Your task to perform on an android device: turn off data saver in the chrome app Image 0: 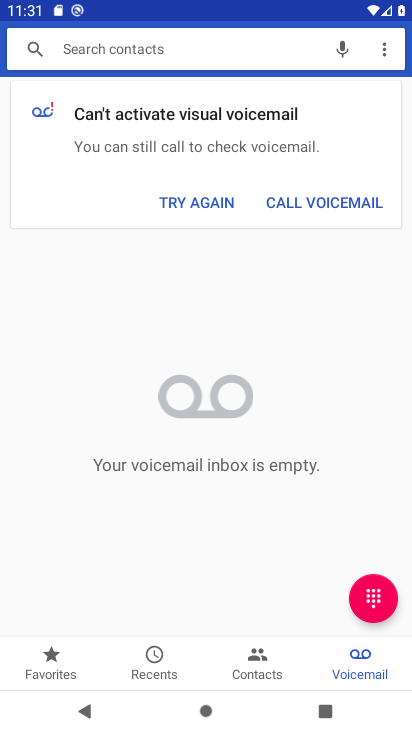
Step 0: press home button
Your task to perform on an android device: turn off data saver in the chrome app Image 1: 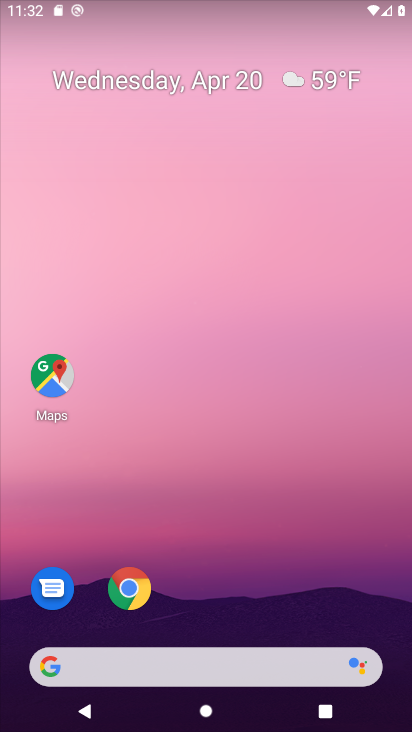
Step 1: click (124, 588)
Your task to perform on an android device: turn off data saver in the chrome app Image 2: 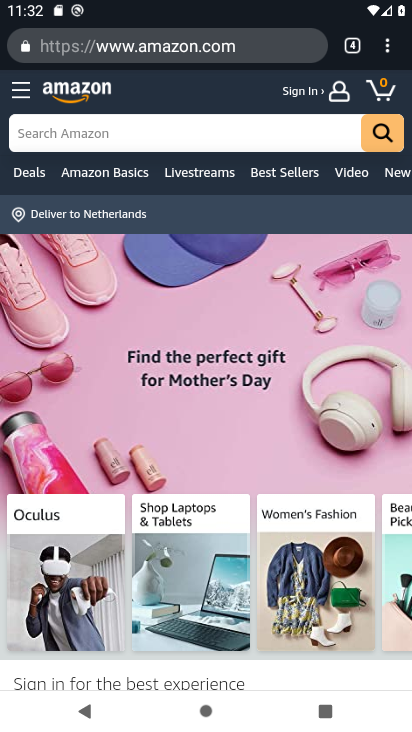
Step 2: click (386, 51)
Your task to perform on an android device: turn off data saver in the chrome app Image 3: 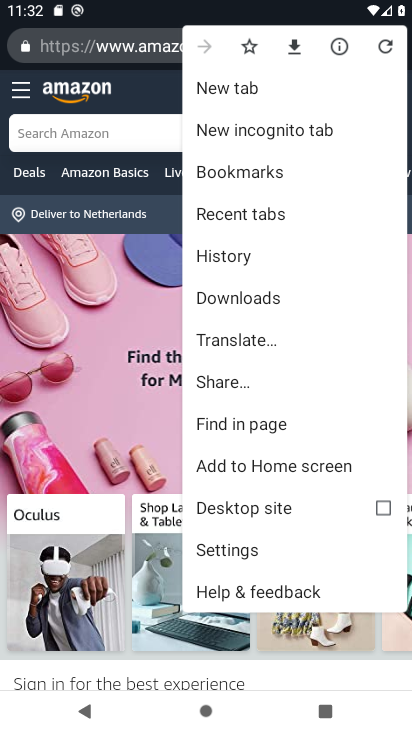
Step 3: click (220, 548)
Your task to perform on an android device: turn off data saver in the chrome app Image 4: 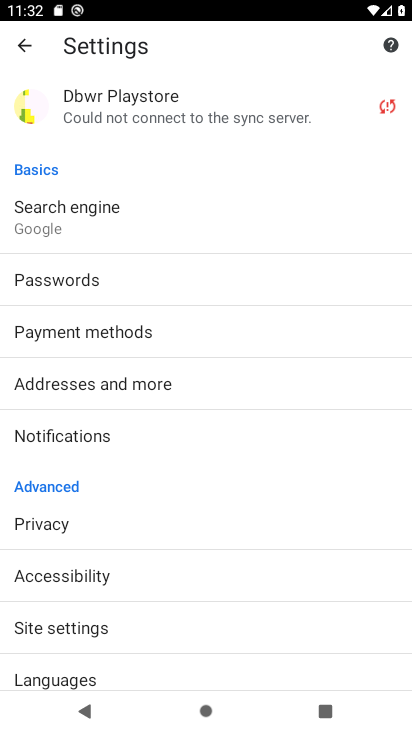
Step 4: drag from (105, 638) to (165, 401)
Your task to perform on an android device: turn off data saver in the chrome app Image 5: 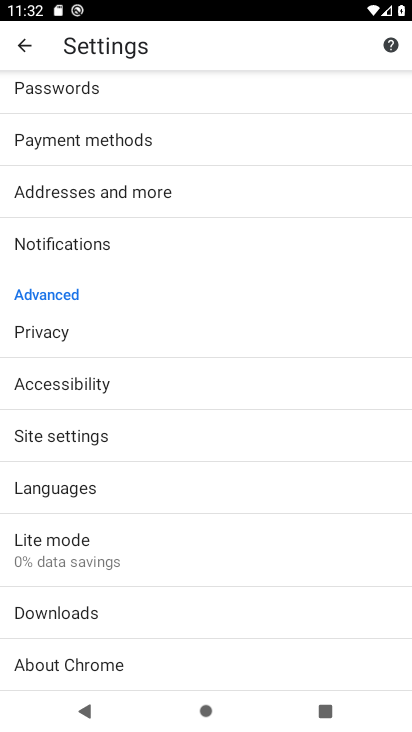
Step 5: click (38, 541)
Your task to perform on an android device: turn off data saver in the chrome app Image 6: 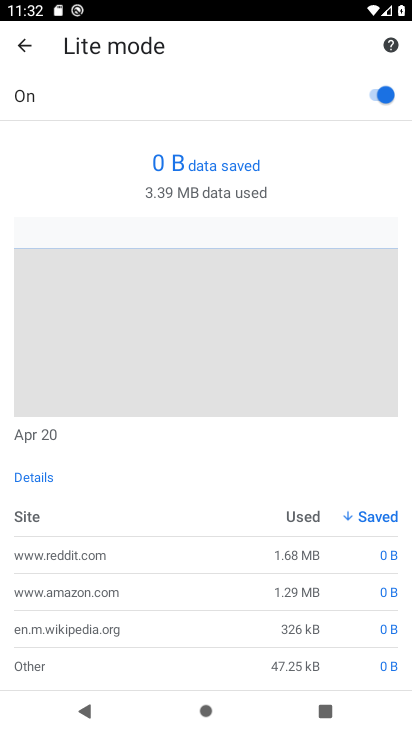
Step 6: drag from (198, 508) to (245, 331)
Your task to perform on an android device: turn off data saver in the chrome app Image 7: 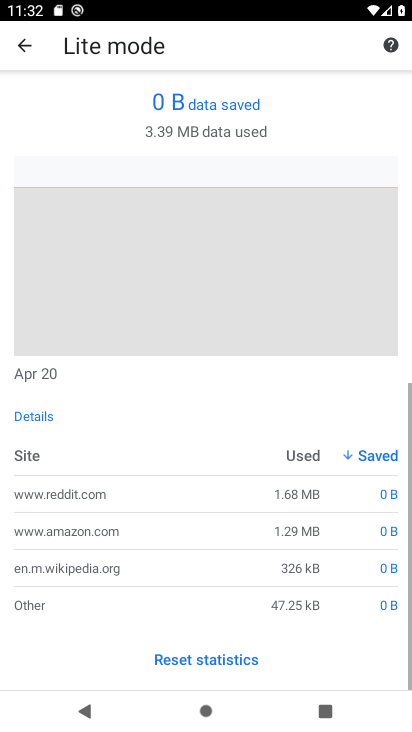
Step 7: drag from (346, 149) to (283, 343)
Your task to perform on an android device: turn off data saver in the chrome app Image 8: 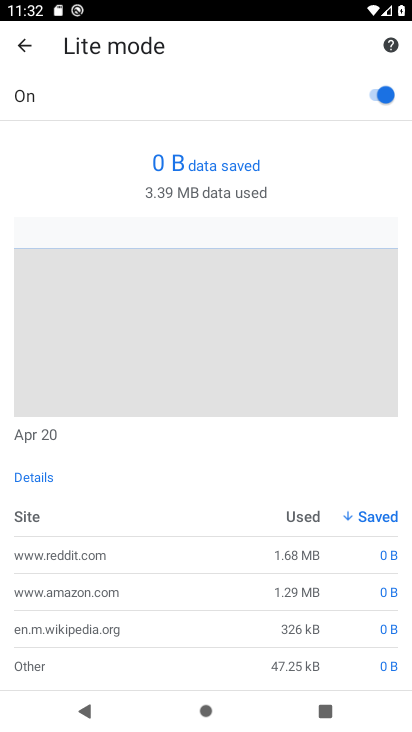
Step 8: click (371, 91)
Your task to perform on an android device: turn off data saver in the chrome app Image 9: 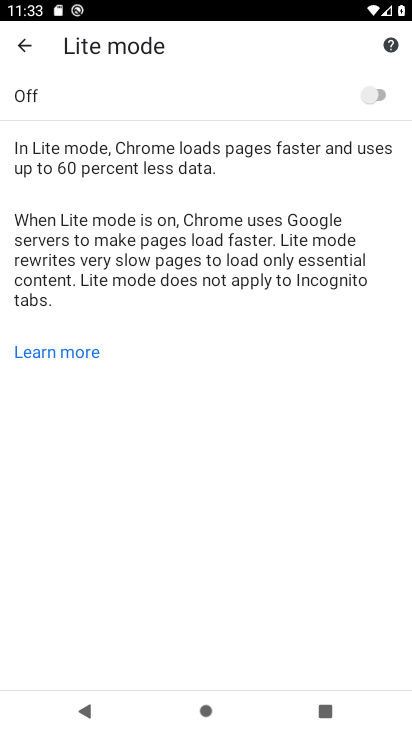
Step 9: task complete